Your task to perform on an android device: open app "Duolingo: language lessons" (install if not already installed), go to login, and select forgot password Image 0: 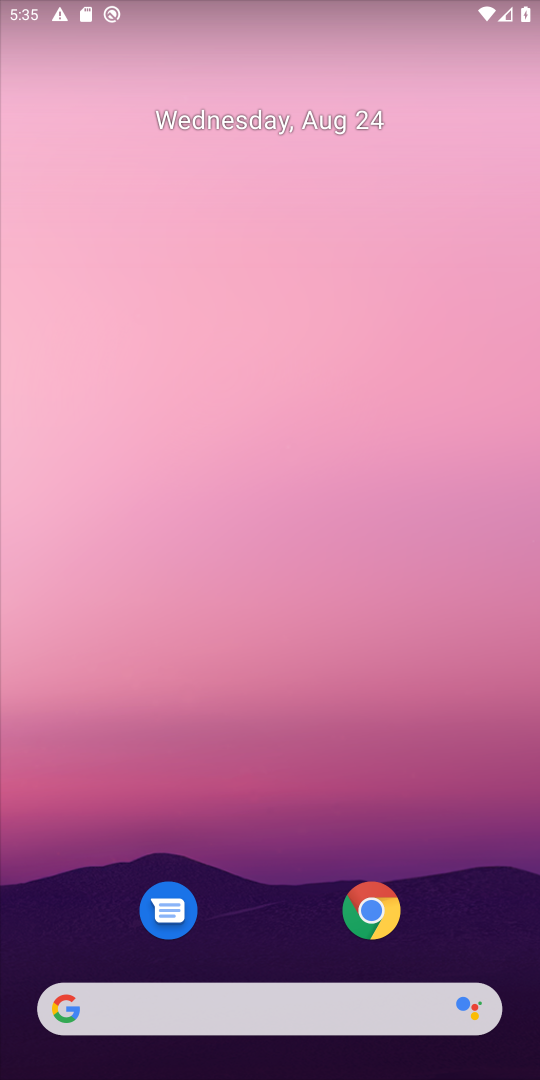
Step 0: drag from (341, 1019) to (290, 220)
Your task to perform on an android device: open app "Duolingo: language lessons" (install if not already installed), go to login, and select forgot password Image 1: 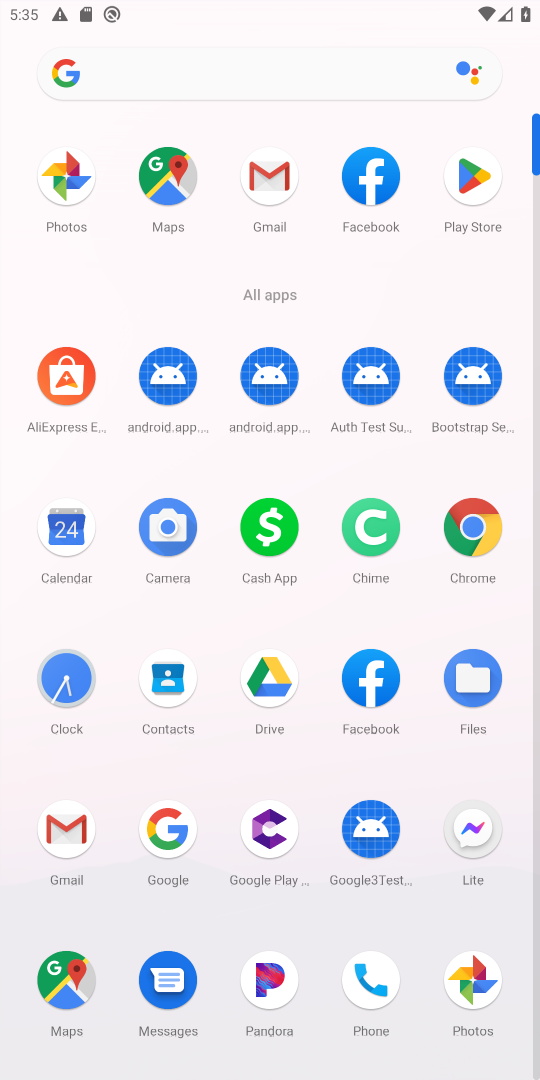
Step 1: click (465, 207)
Your task to perform on an android device: open app "Duolingo: language lessons" (install if not already installed), go to login, and select forgot password Image 2: 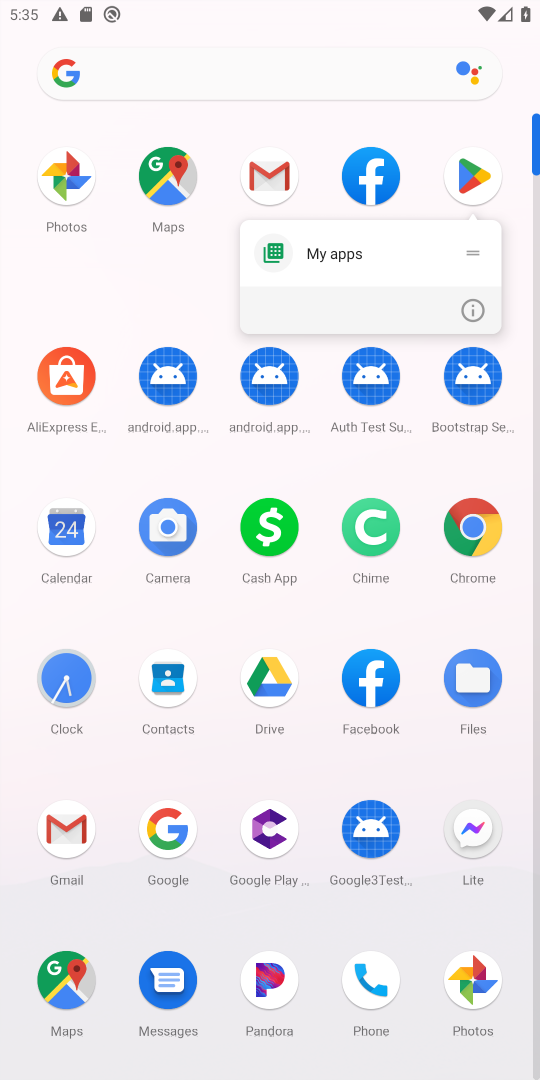
Step 2: click (468, 190)
Your task to perform on an android device: open app "Duolingo: language lessons" (install if not already installed), go to login, and select forgot password Image 3: 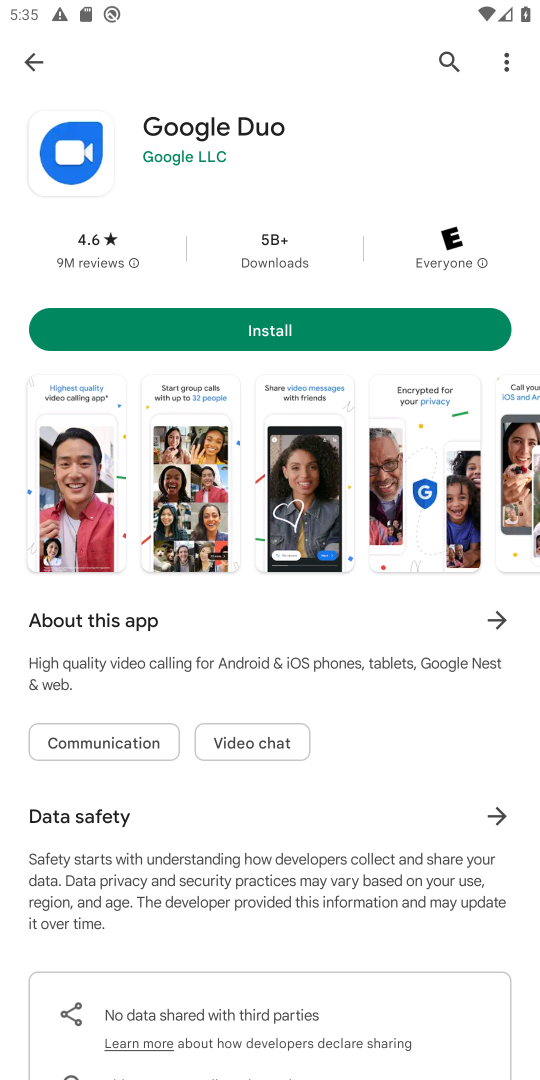
Step 3: click (445, 56)
Your task to perform on an android device: open app "Duolingo: language lessons" (install if not already installed), go to login, and select forgot password Image 4: 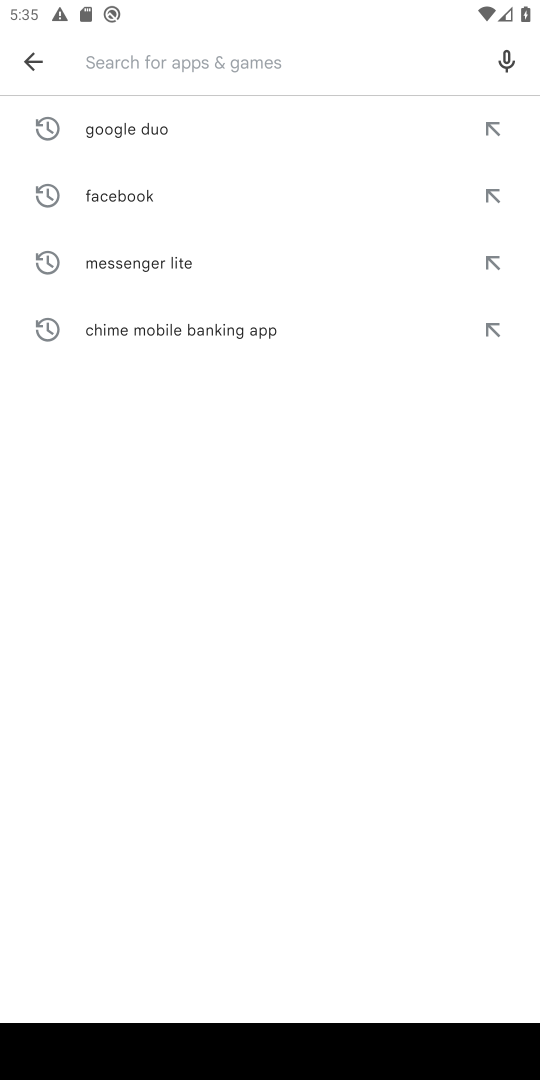
Step 4: type "duolingo"
Your task to perform on an android device: open app "Duolingo: language lessons" (install if not already installed), go to login, and select forgot password Image 5: 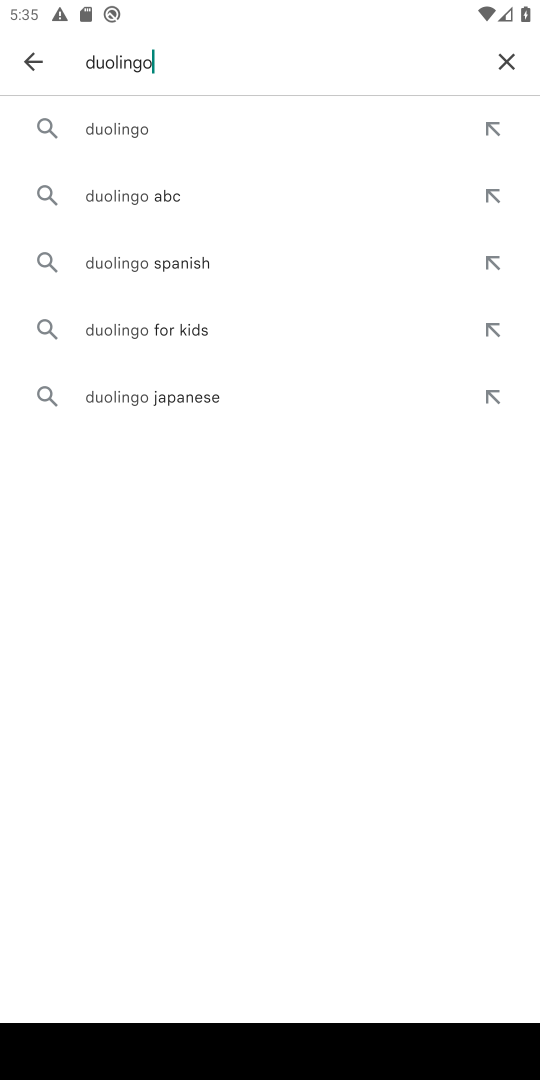
Step 5: click (163, 126)
Your task to perform on an android device: open app "Duolingo: language lessons" (install if not already installed), go to login, and select forgot password Image 6: 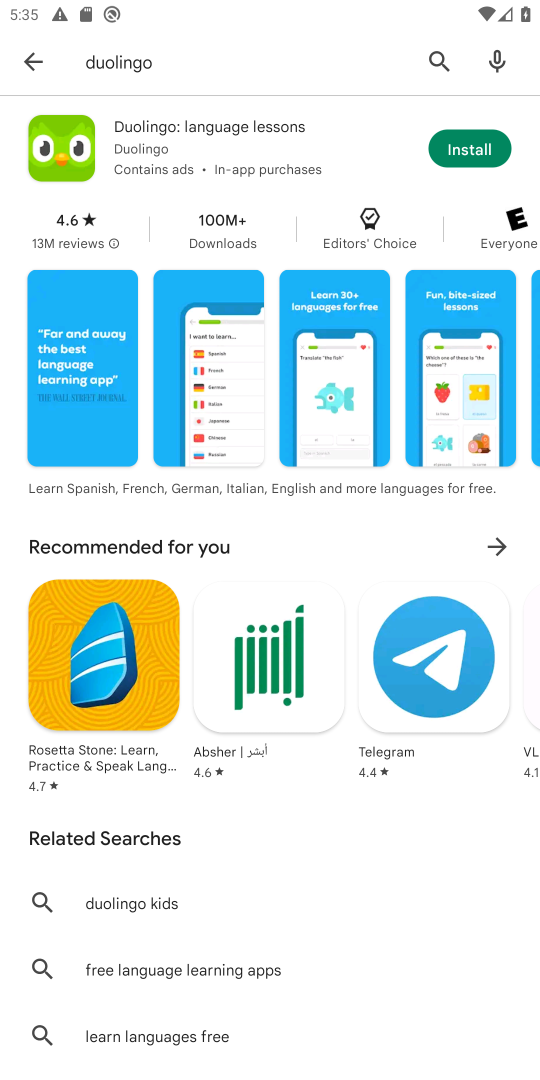
Step 6: click (463, 163)
Your task to perform on an android device: open app "Duolingo: language lessons" (install if not already installed), go to login, and select forgot password Image 7: 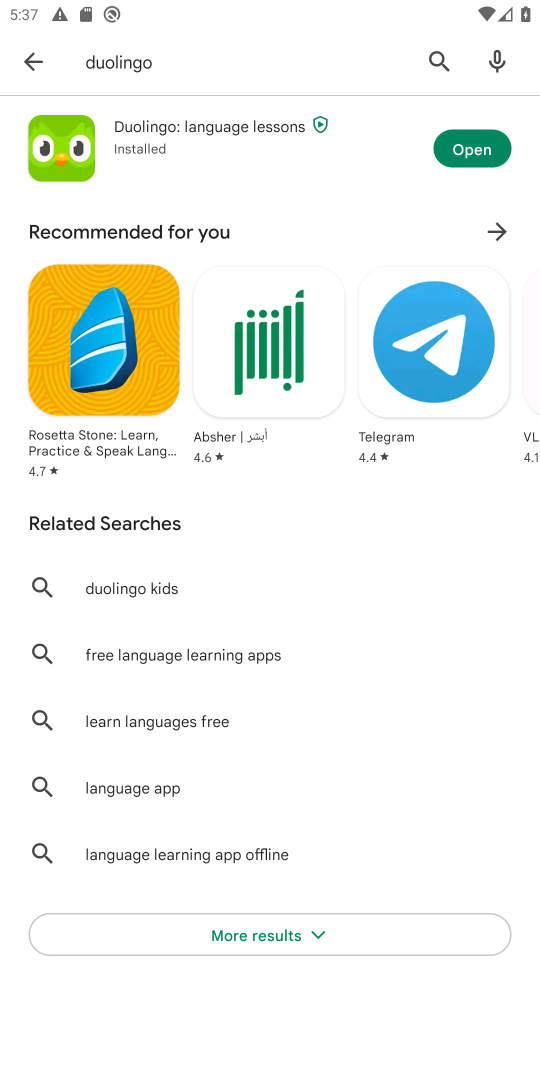
Step 7: click (457, 141)
Your task to perform on an android device: open app "Duolingo: language lessons" (install if not already installed), go to login, and select forgot password Image 8: 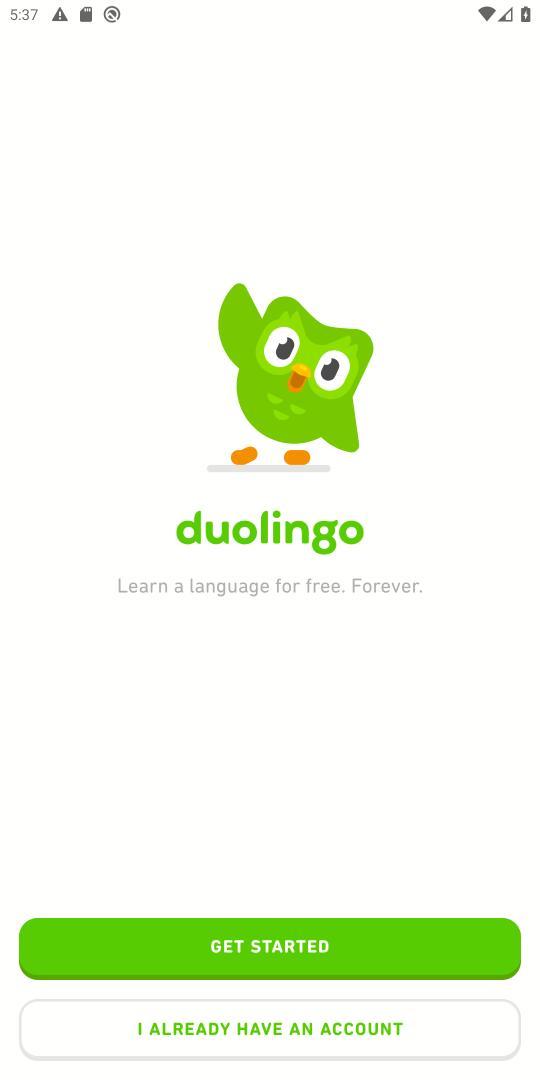
Step 8: click (333, 1045)
Your task to perform on an android device: open app "Duolingo: language lessons" (install if not already installed), go to login, and select forgot password Image 9: 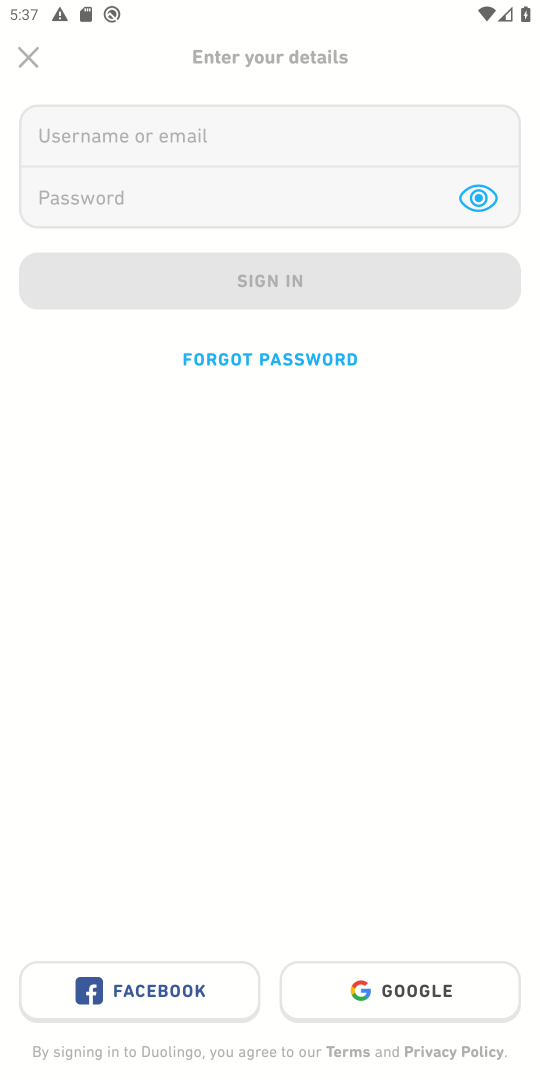
Step 9: click (239, 356)
Your task to perform on an android device: open app "Duolingo: language lessons" (install if not already installed), go to login, and select forgot password Image 10: 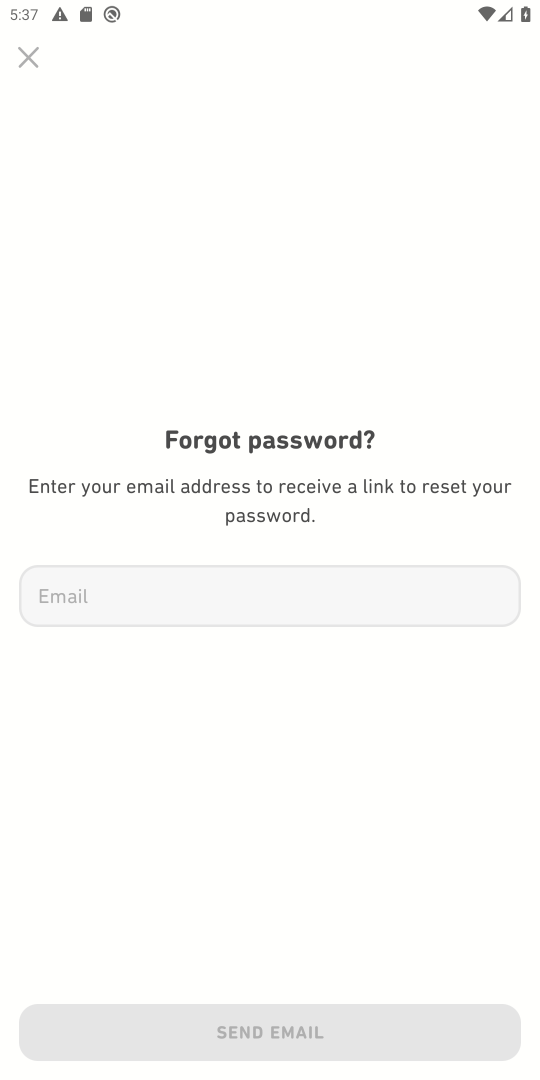
Step 10: task complete